Your task to perform on an android device: open a new tab in the chrome app Image 0: 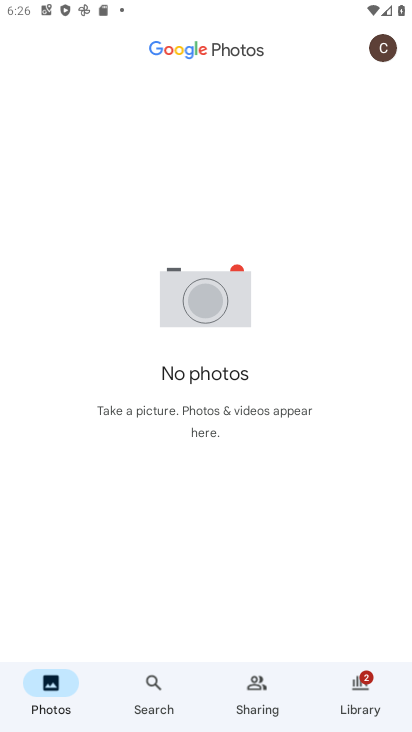
Step 0: press home button
Your task to perform on an android device: open a new tab in the chrome app Image 1: 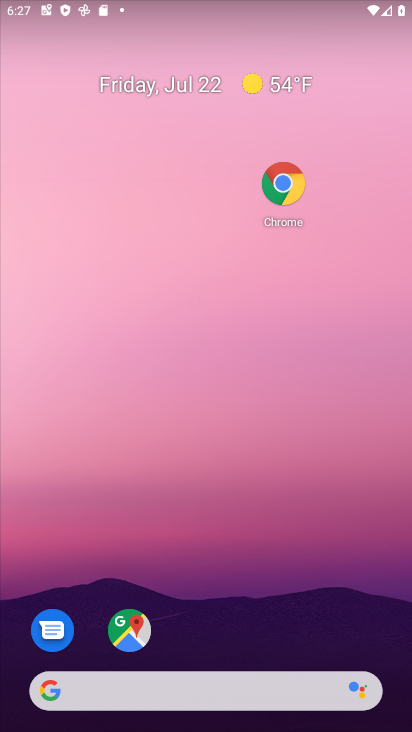
Step 1: click (284, 179)
Your task to perform on an android device: open a new tab in the chrome app Image 2: 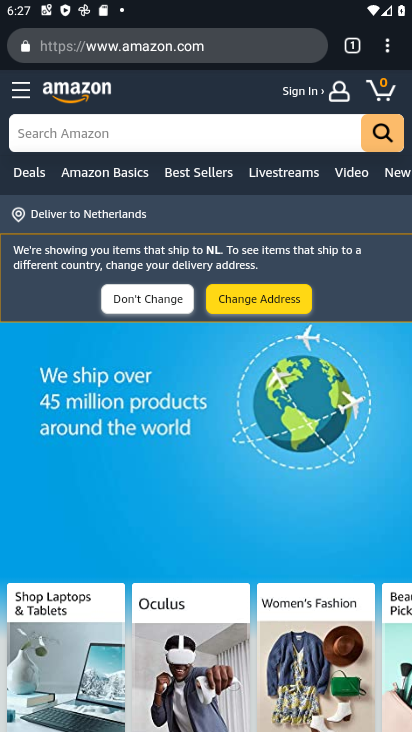
Step 2: click (387, 50)
Your task to perform on an android device: open a new tab in the chrome app Image 3: 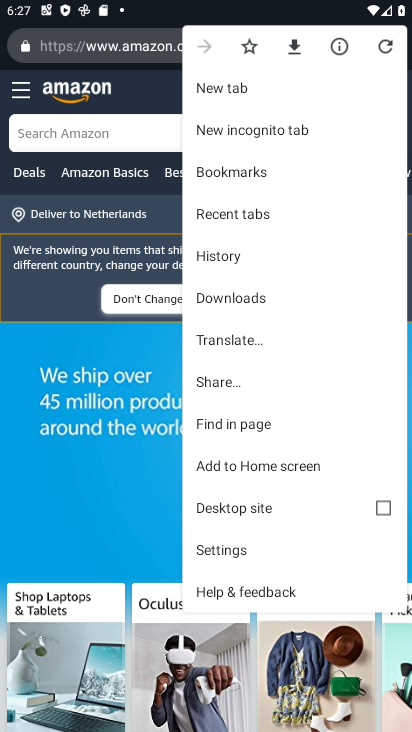
Step 3: click (206, 87)
Your task to perform on an android device: open a new tab in the chrome app Image 4: 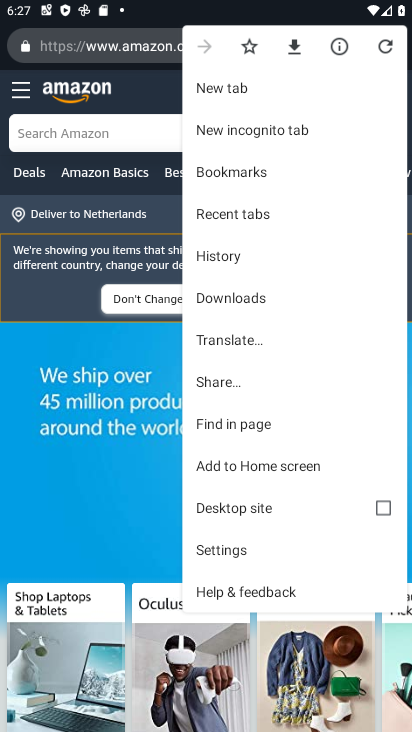
Step 4: click (234, 91)
Your task to perform on an android device: open a new tab in the chrome app Image 5: 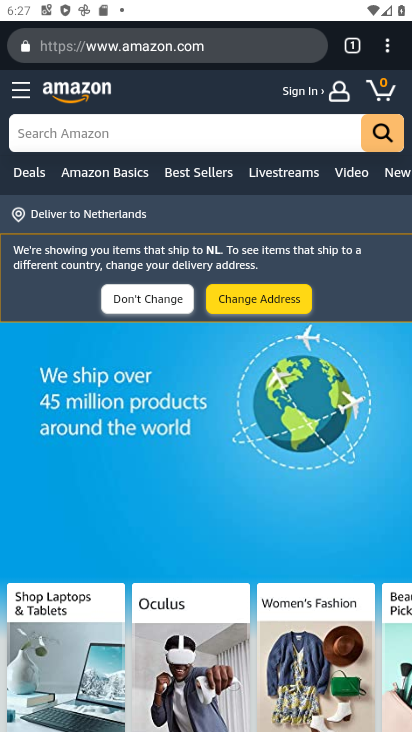
Step 5: click (234, 91)
Your task to perform on an android device: open a new tab in the chrome app Image 6: 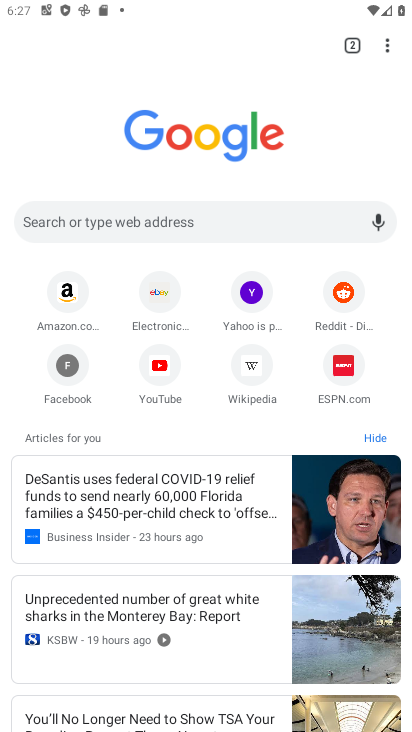
Step 6: task complete